Your task to perform on an android device: turn on the 12-hour format for clock Image 0: 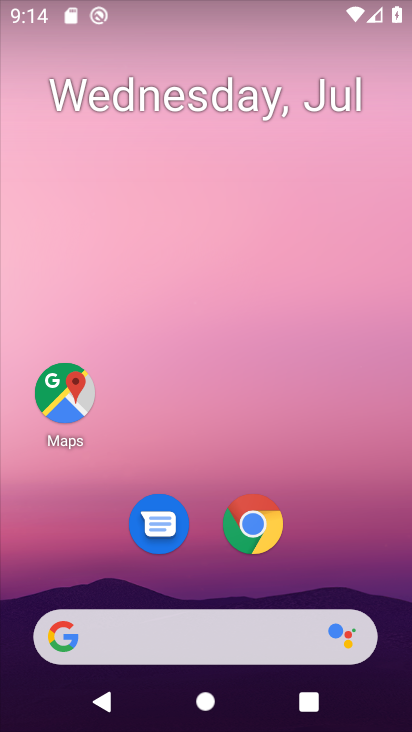
Step 0: drag from (337, 535) to (336, 138)
Your task to perform on an android device: turn on the 12-hour format for clock Image 1: 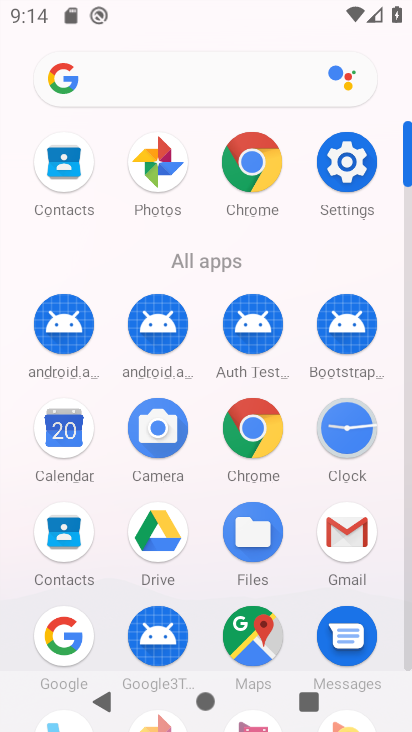
Step 1: click (336, 415)
Your task to perform on an android device: turn on the 12-hour format for clock Image 2: 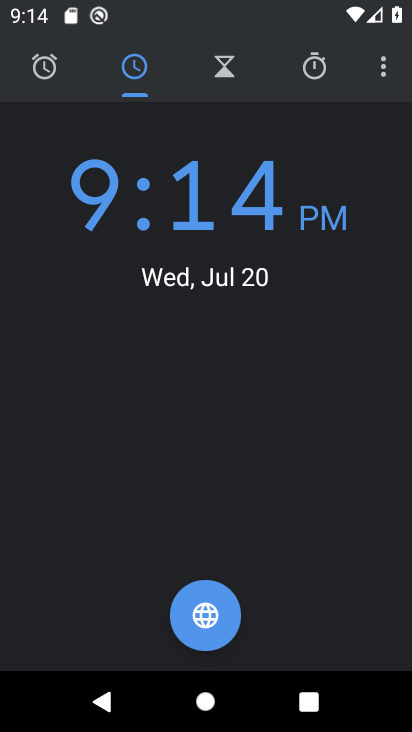
Step 2: click (388, 80)
Your task to perform on an android device: turn on the 12-hour format for clock Image 3: 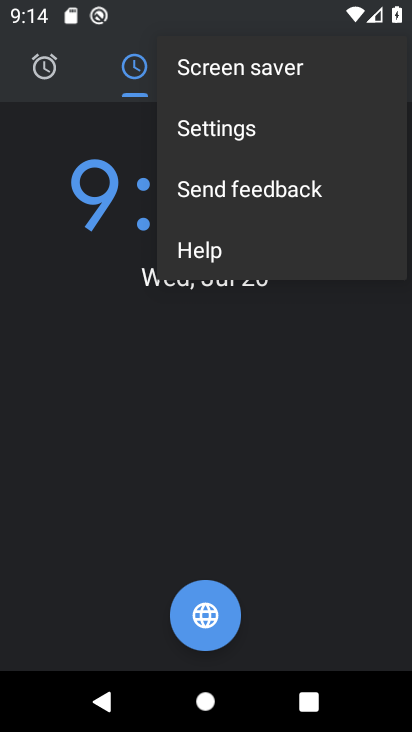
Step 3: click (276, 136)
Your task to perform on an android device: turn on the 12-hour format for clock Image 4: 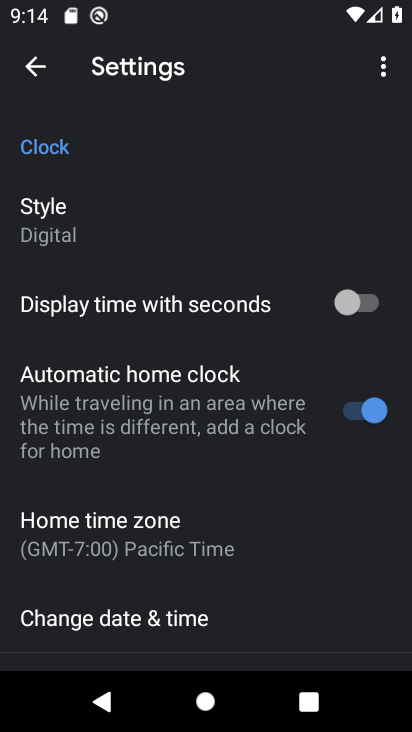
Step 4: click (246, 629)
Your task to perform on an android device: turn on the 12-hour format for clock Image 5: 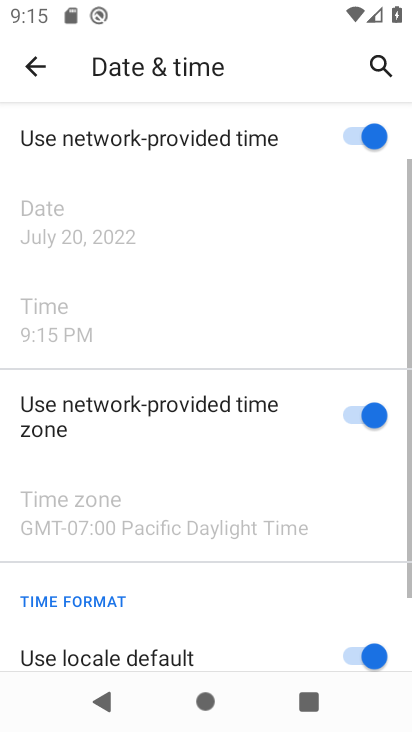
Step 5: task complete